Your task to perform on an android device: Set the phone to "Do not disturb". Image 0: 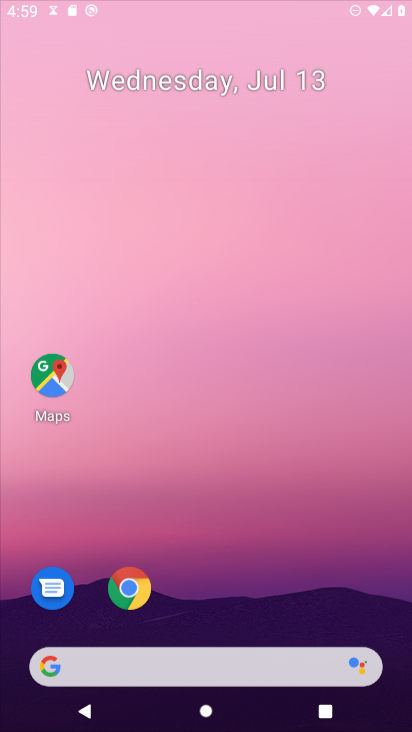
Step 0: click (201, 224)
Your task to perform on an android device: Set the phone to "Do not disturb". Image 1: 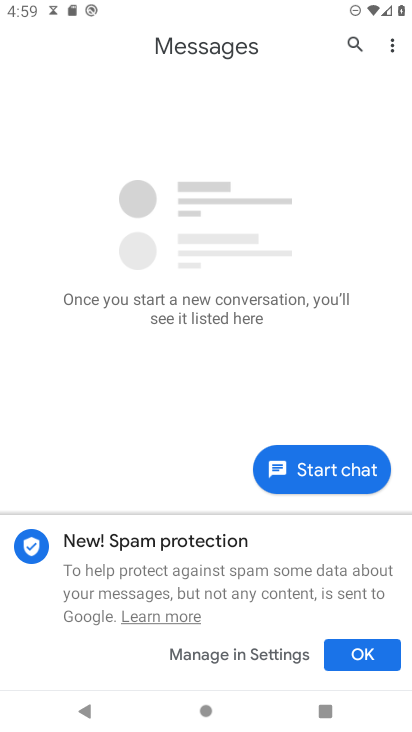
Step 1: press back button
Your task to perform on an android device: Set the phone to "Do not disturb". Image 2: 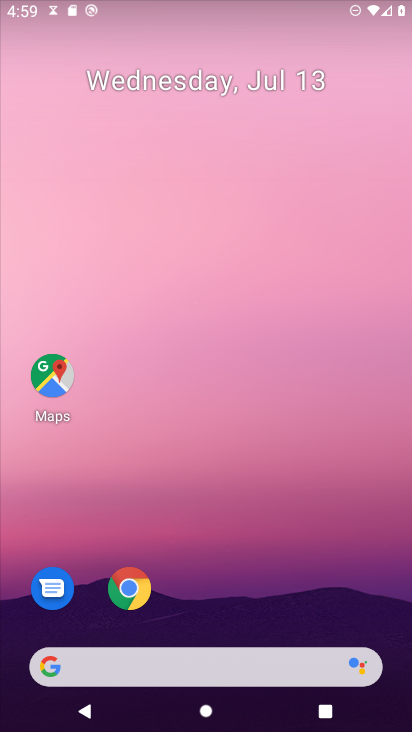
Step 2: drag from (259, 622) to (191, 106)
Your task to perform on an android device: Set the phone to "Do not disturb". Image 3: 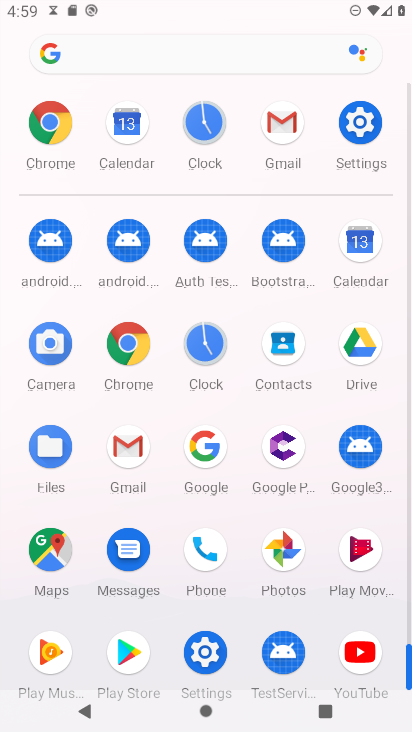
Step 3: click (197, 663)
Your task to perform on an android device: Set the phone to "Do not disturb". Image 4: 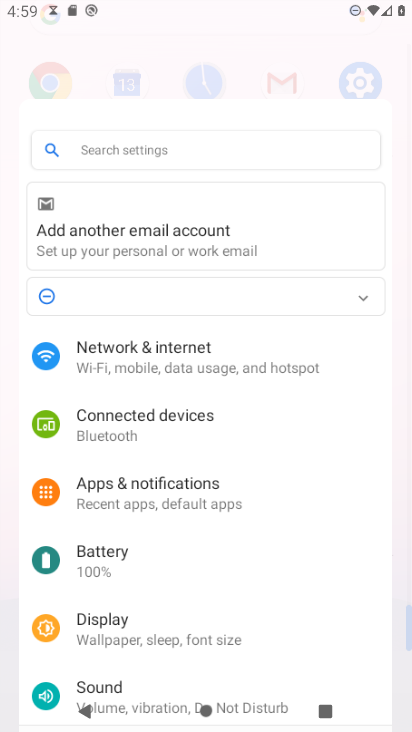
Step 4: click (195, 658)
Your task to perform on an android device: Set the phone to "Do not disturb". Image 5: 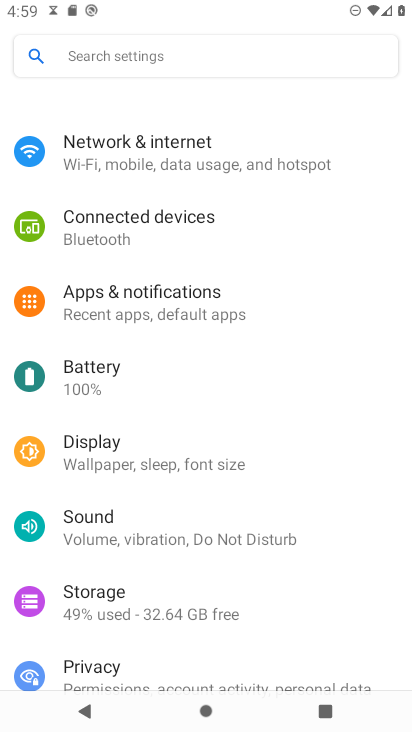
Step 5: click (195, 658)
Your task to perform on an android device: Set the phone to "Do not disturb". Image 6: 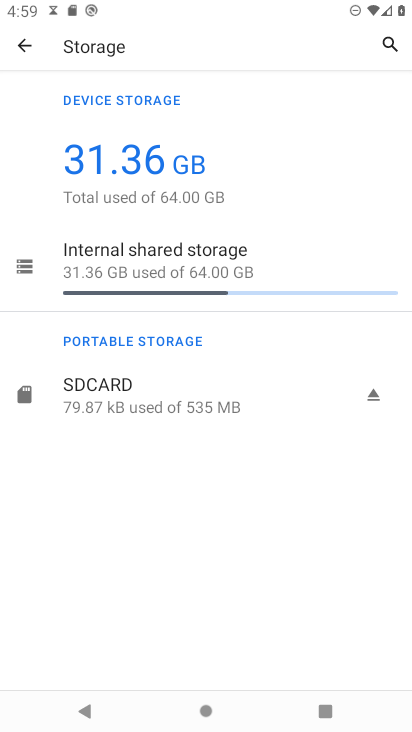
Step 6: click (29, 40)
Your task to perform on an android device: Set the phone to "Do not disturb". Image 7: 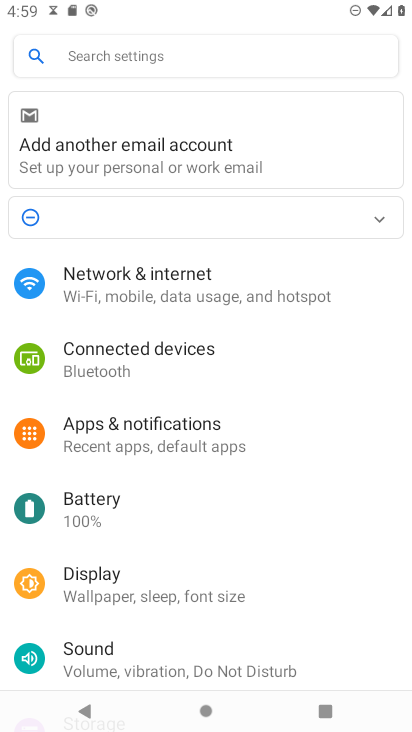
Step 7: click (127, 589)
Your task to perform on an android device: Set the phone to "Do not disturb". Image 8: 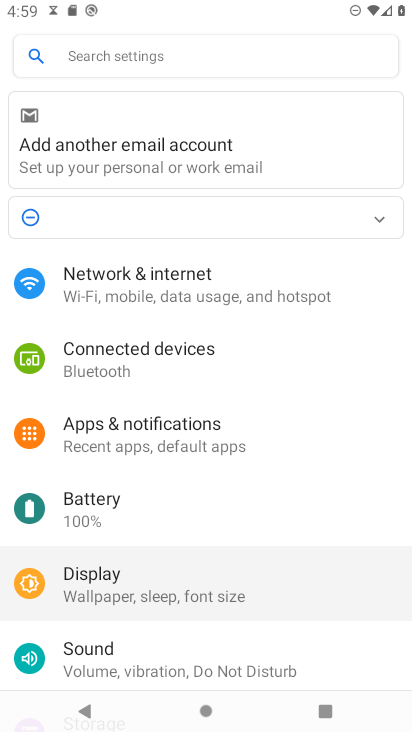
Step 8: click (127, 589)
Your task to perform on an android device: Set the phone to "Do not disturb". Image 9: 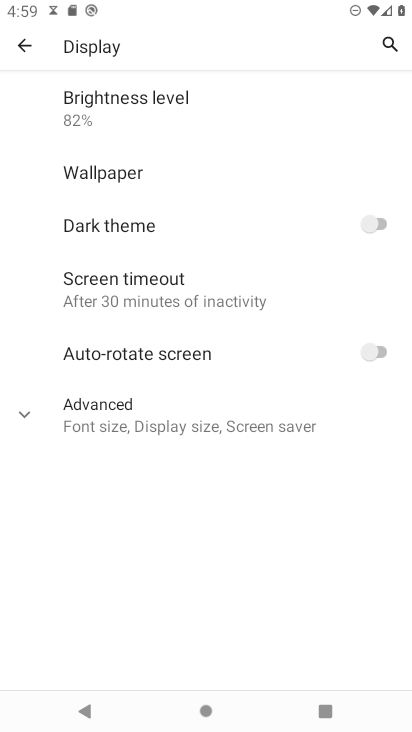
Step 9: click (28, 40)
Your task to perform on an android device: Set the phone to "Do not disturb". Image 10: 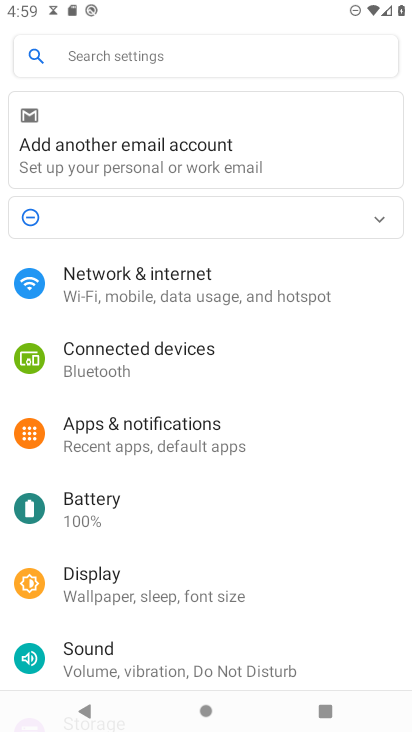
Step 10: click (107, 664)
Your task to perform on an android device: Set the phone to "Do not disturb". Image 11: 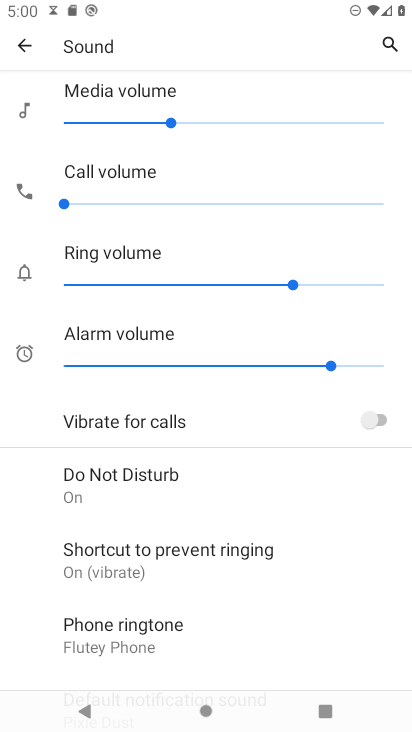
Step 11: task complete